Your task to perform on an android device: turn off smart reply in the gmail app Image 0: 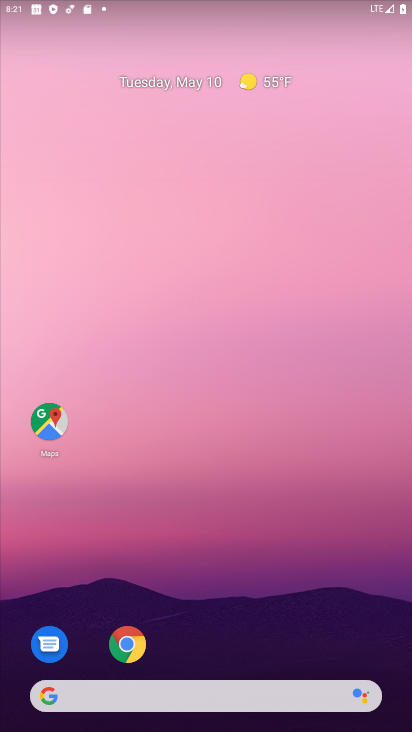
Step 0: drag from (242, 582) to (257, 20)
Your task to perform on an android device: turn off smart reply in the gmail app Image 1: 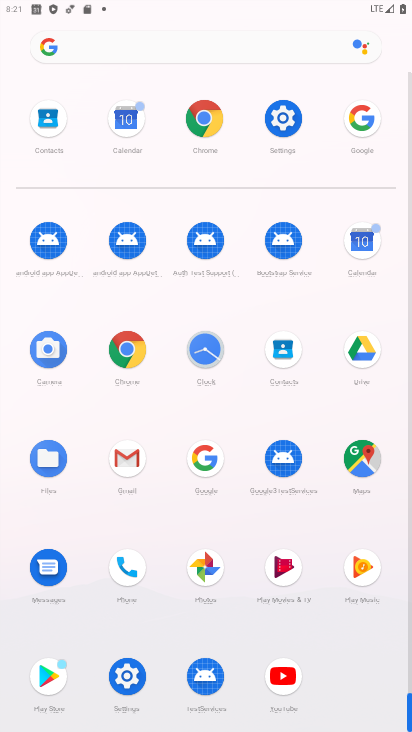
Step 1: click (134, 461)
Your task to perform on an android device: turn off smart reply in the gmail app Image 2: 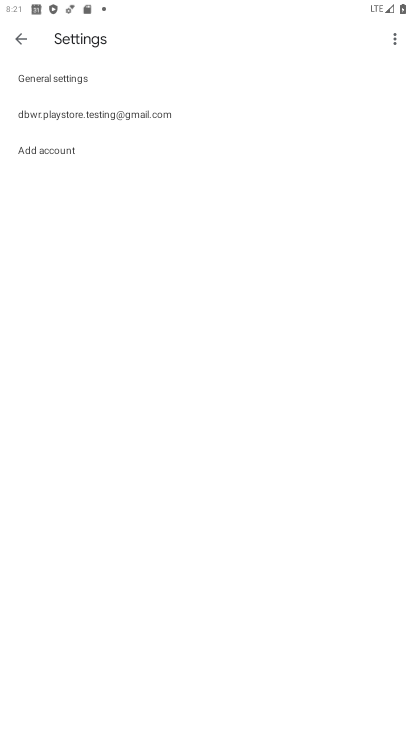
Step 2: click (122, 116)
Your task to perform on an android device: turn off smart reply in the gmail app Image 3: 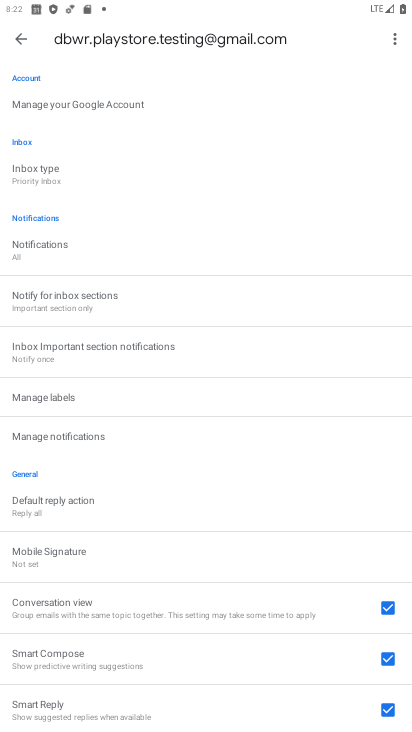
Step 3: drag from (341, 607) to (410, 588)
Your task to perform on an android device: turn off smart reply in the gmail app Image 4: 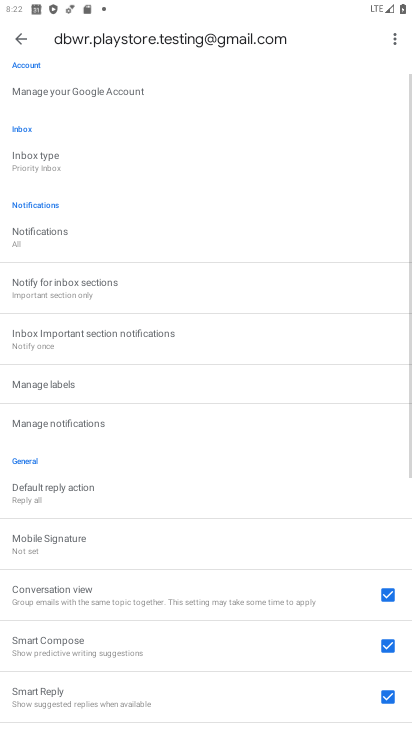
Step 4: drag from (368, 680) to (411, 565)
Your task to perform on an android device: turn off smart reply in the gmail app Image 5: 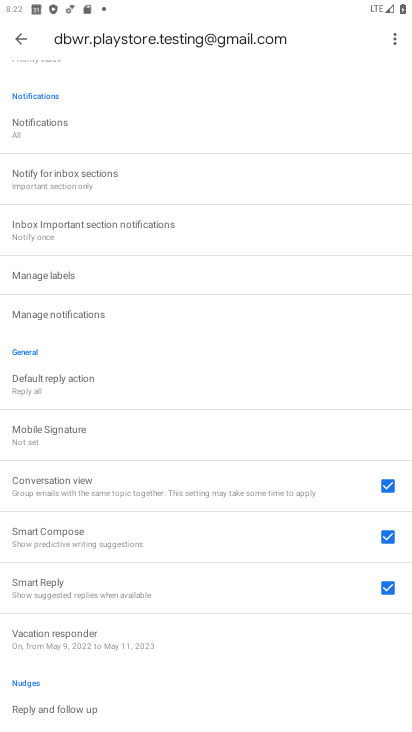
Step 5: click (385, 590)
Your task to perform on an android device: turn off smart reply in the gmail app Image 6: 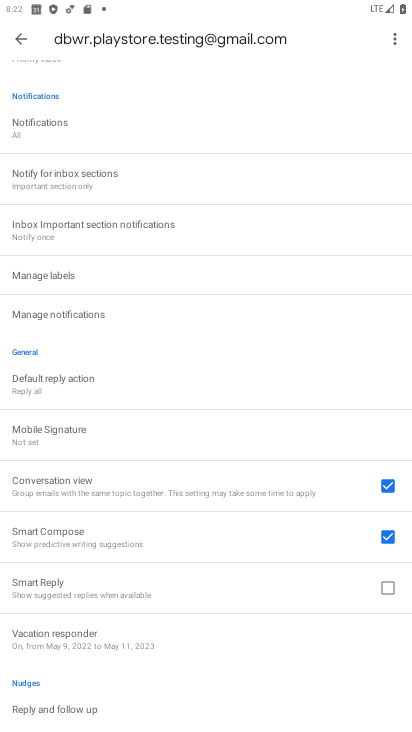
Step 6: task complete